Your task to perform on an android device: Open Google Maps Image 0: 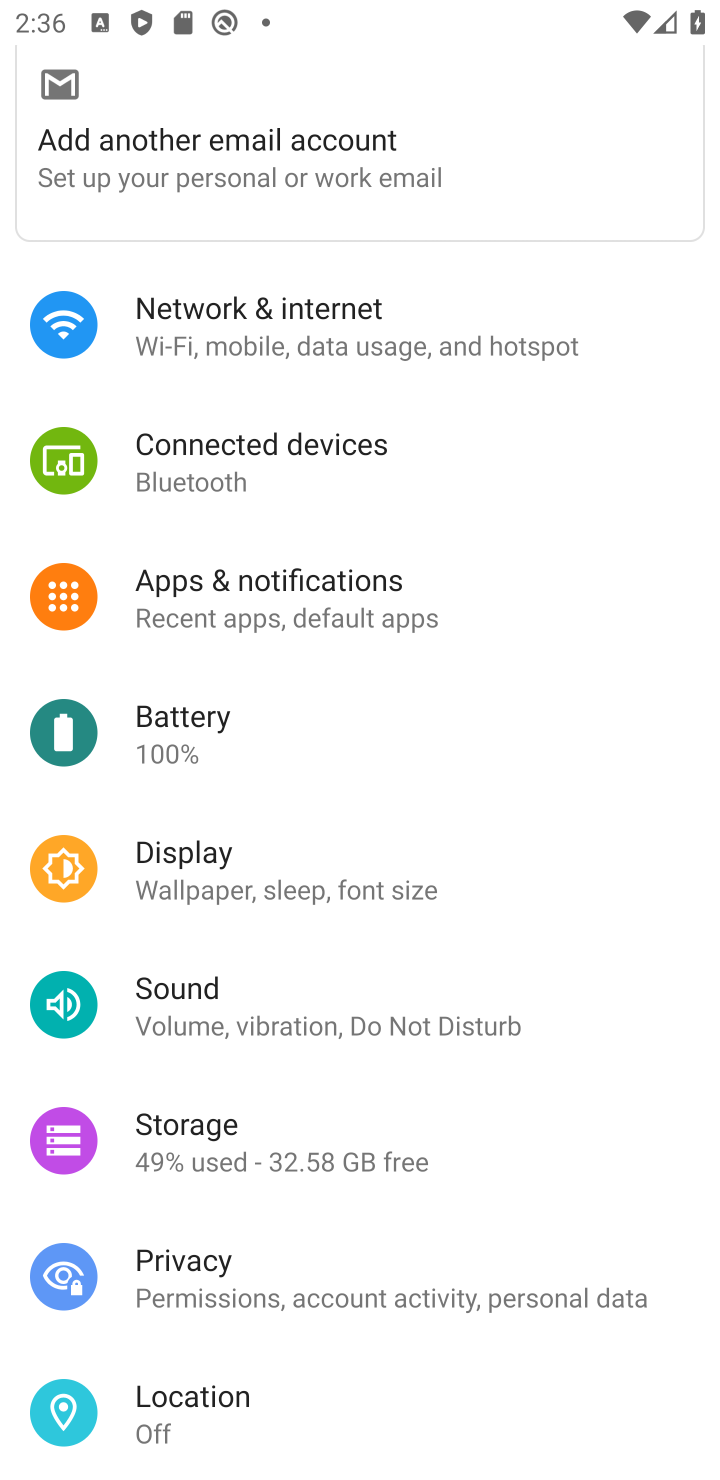
Step 0: drag from (440, 1235) to (354, 425)
Your task to perform on an android device: Open Google Maps Image 1: 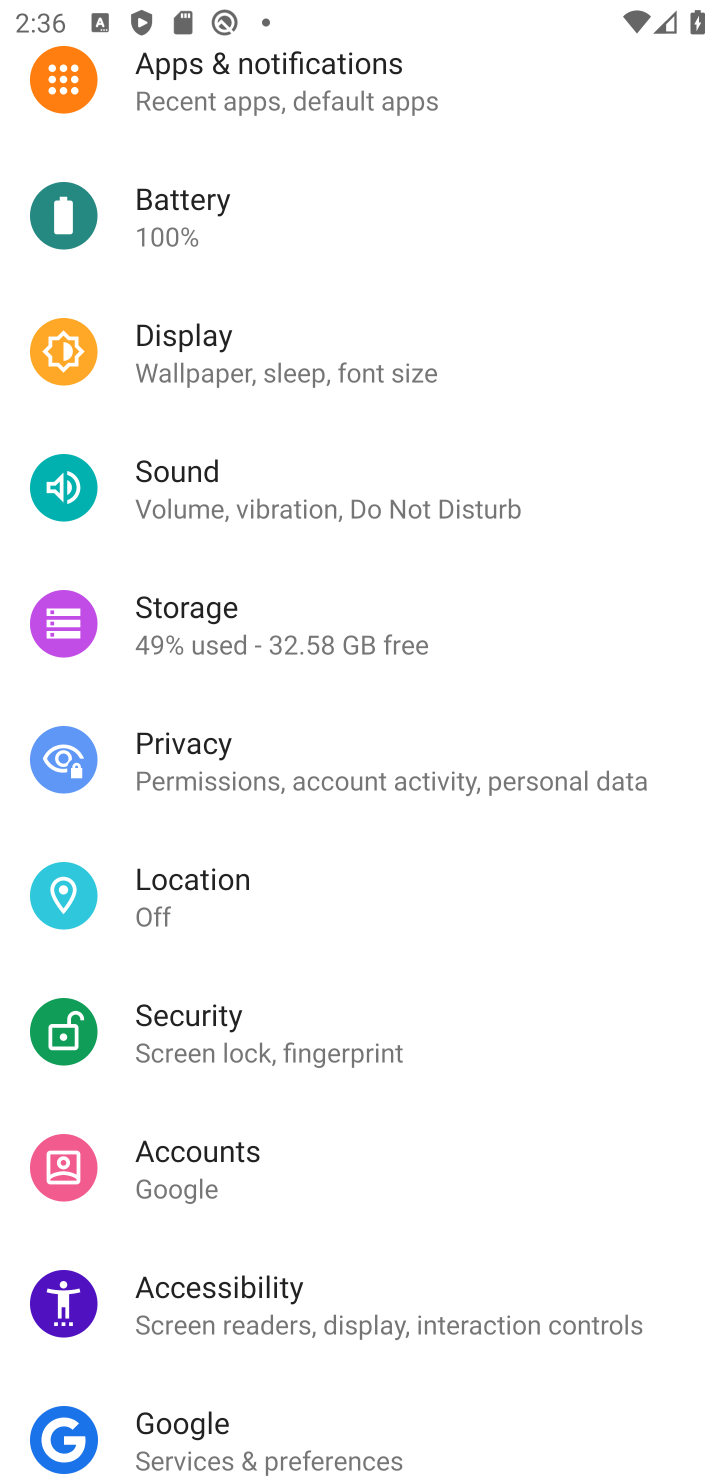
Step 1: press home button
Your task to perform on an android device: Open Google Maps Image 2: 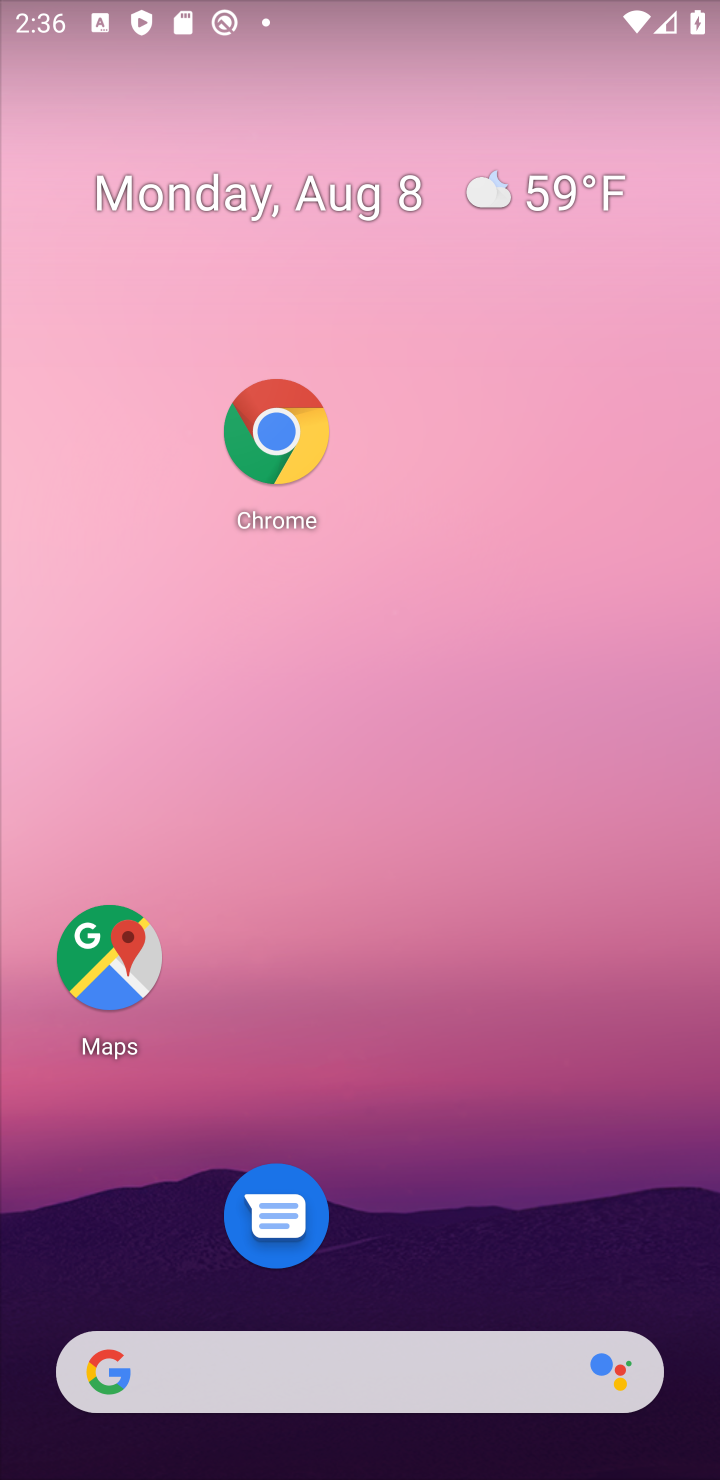
Step 2: drag from (437, 670) to (399, 74)
Your task to perform on an android device: Open Google Maps Image 3: 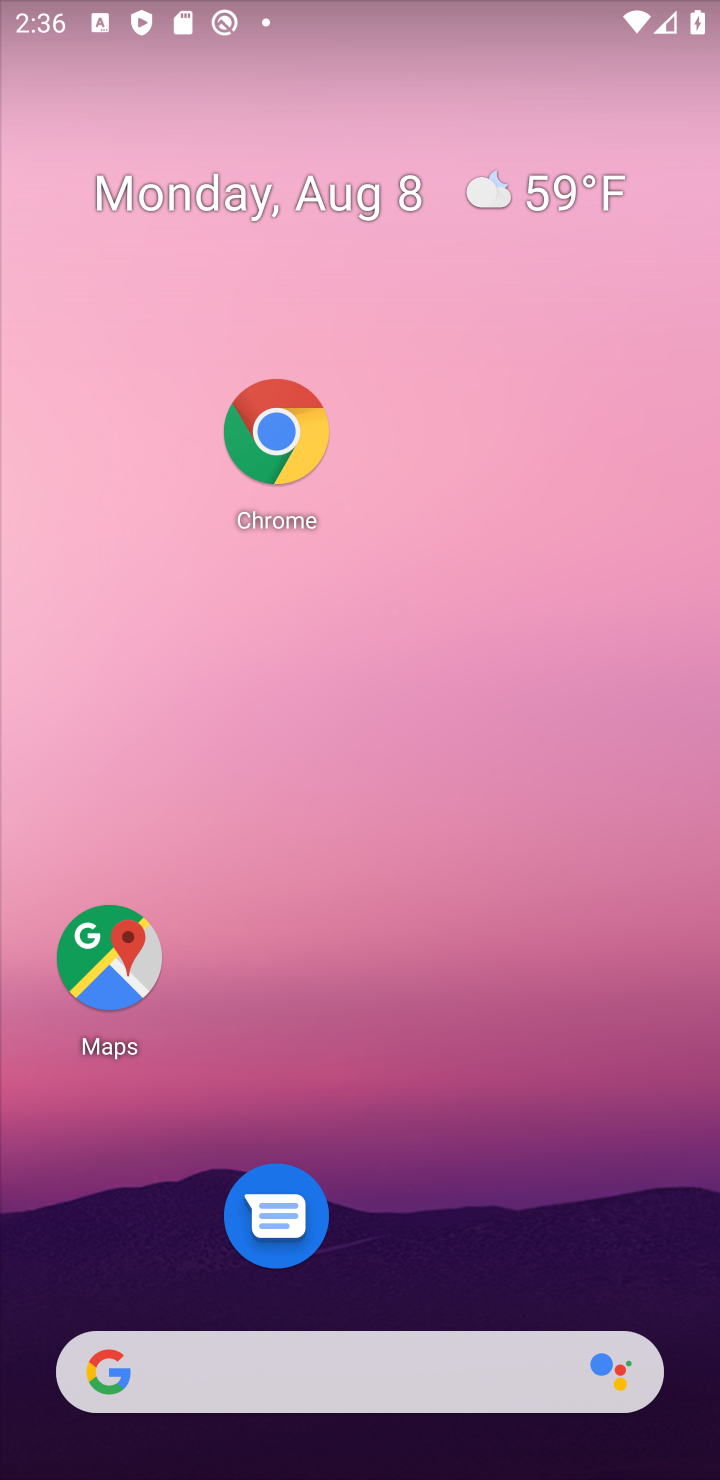
Step 3: drag from (450, 789) to (436, 554)
Your task to perform on an android device: Open Google Maps Image 4: 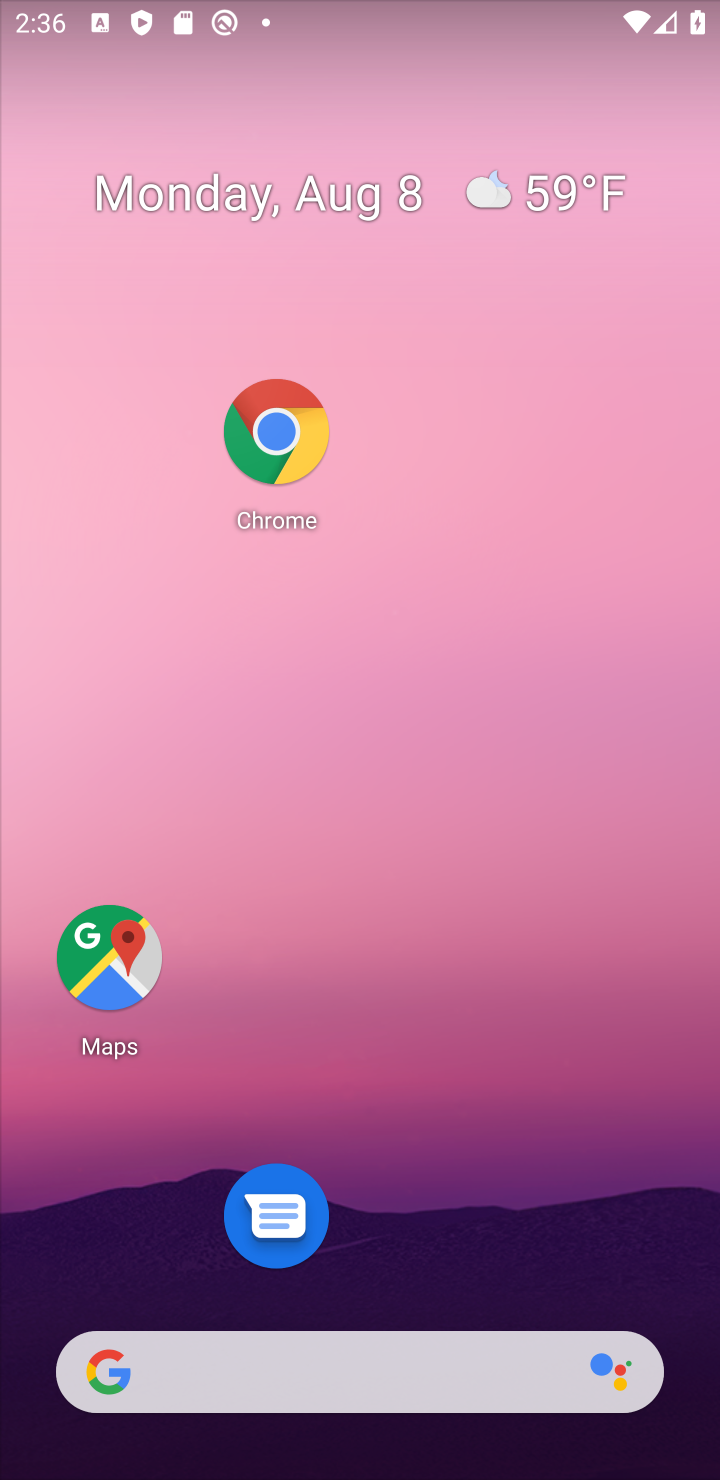
Step 4: drag from (419, 1265) to (349, 81)
Your task to perform on an android device: Open Google Maps Image 5: 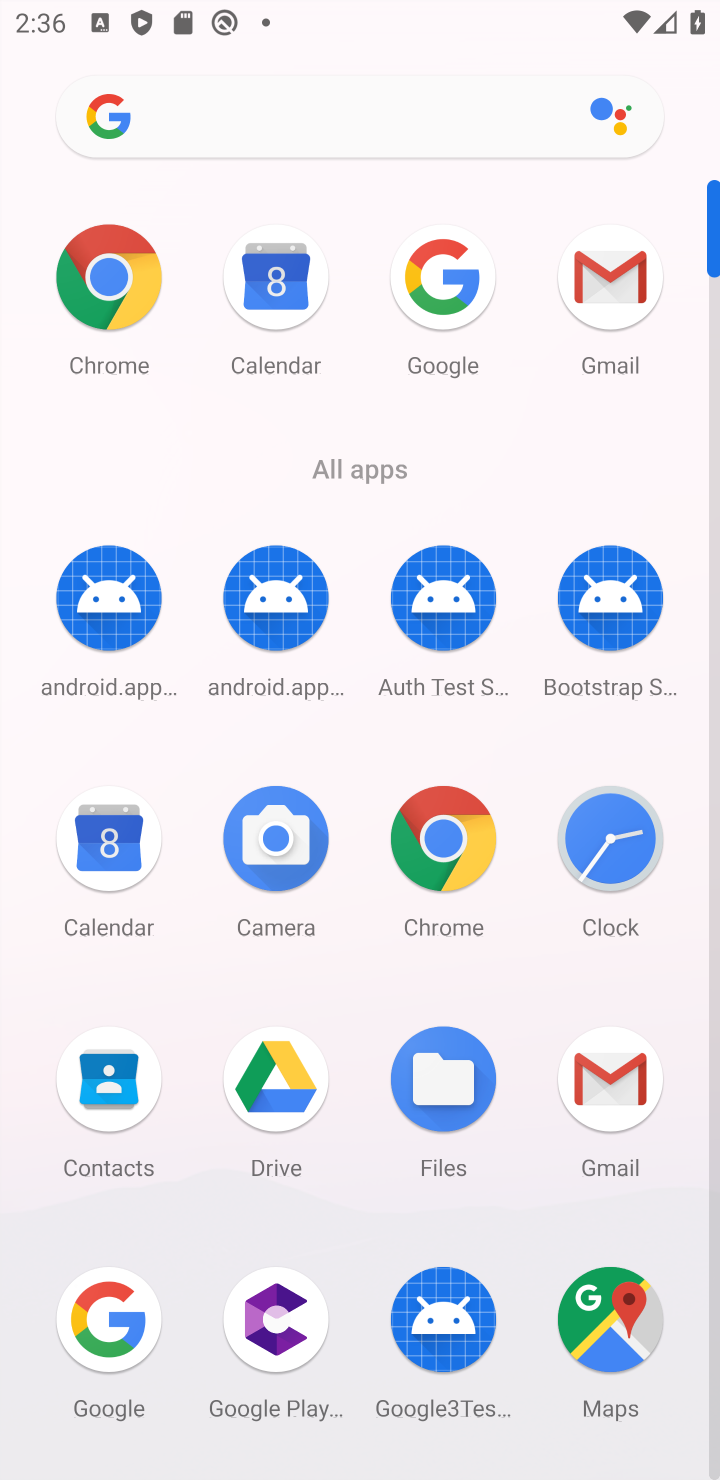
Step 5: drag from (358, 1083) to (319, 341)
Your task to perform on an android device: Open Google Maps Image 6: 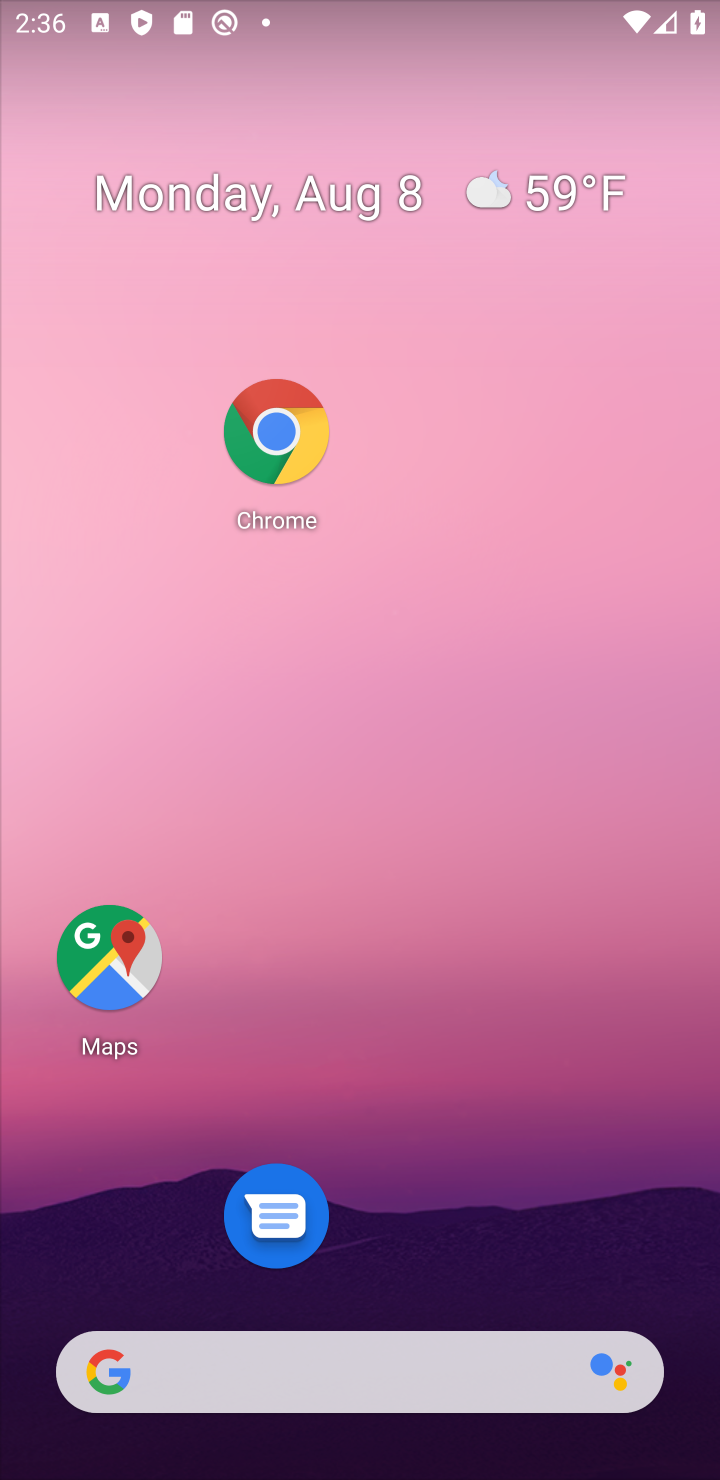
Step 6: drag from (451, 1198) to (317, 171)
Your task to perform on an android device: Open Google Maps Image 7: 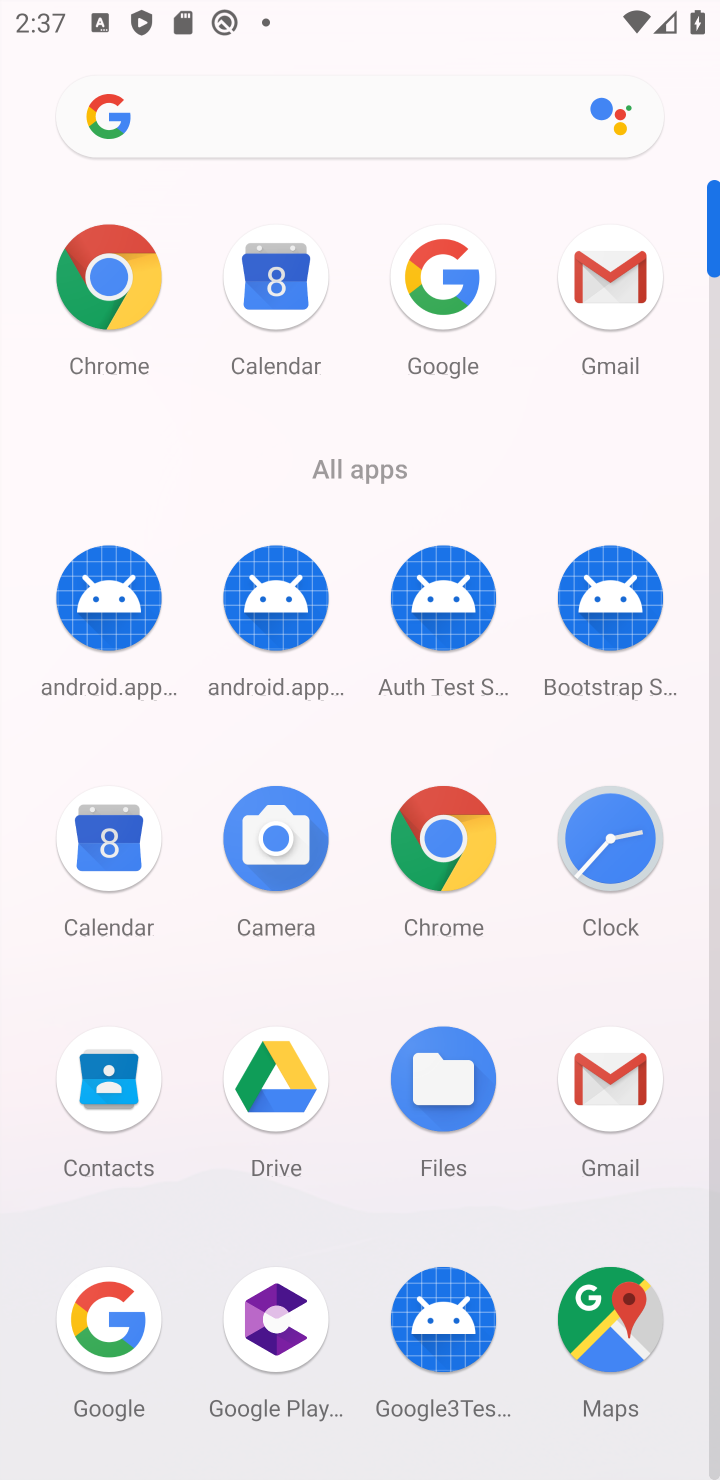
Step 7: click (631, 1355)
Your task to perform on an android device: Open Google Maps Image 8: 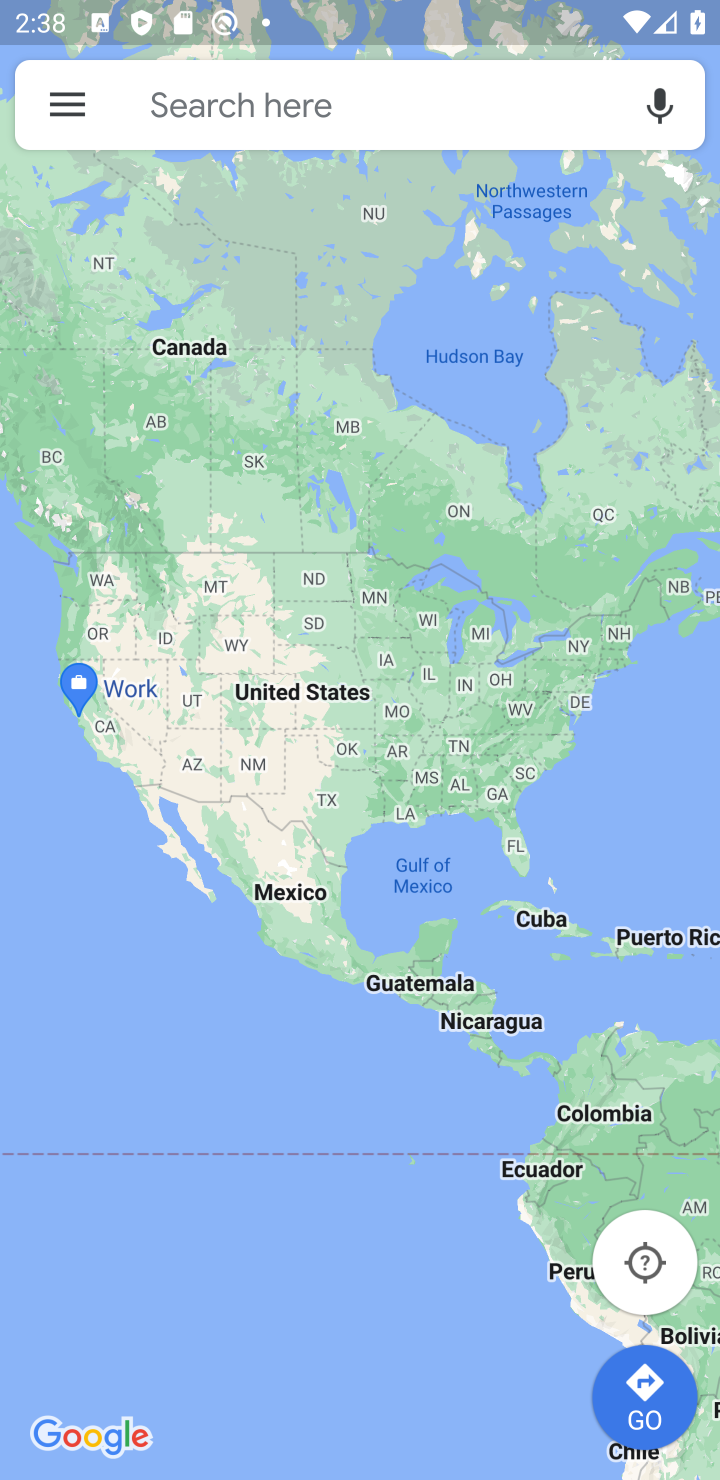
Step 8: task complete